Your task to perform on an android device: Is it going to rain tomorrow? Image 0: 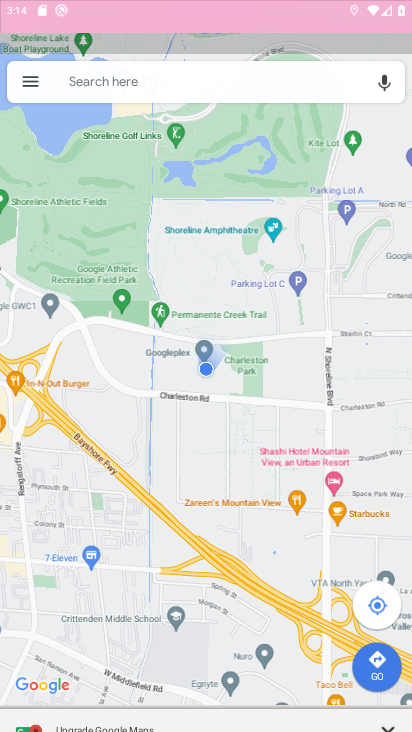
Step 0: drag from (218, 645) to (241, 432)
Your task to perform on an android device: Is it going to rain tomorrow? Image 1: 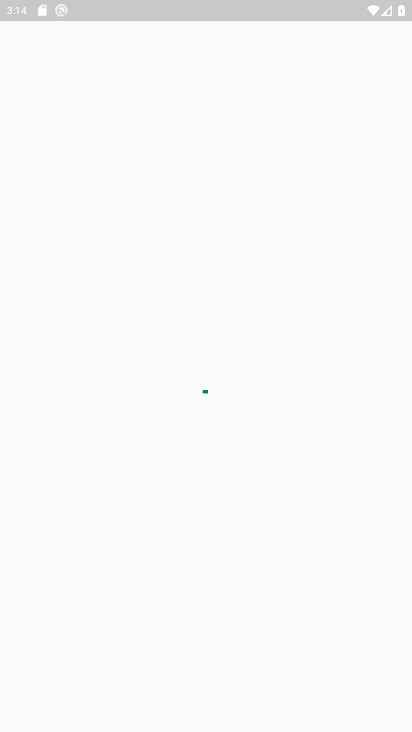
Step 1: press home button
Your task to perform on an android device: Is it going to rain tomorrow? Image 2: 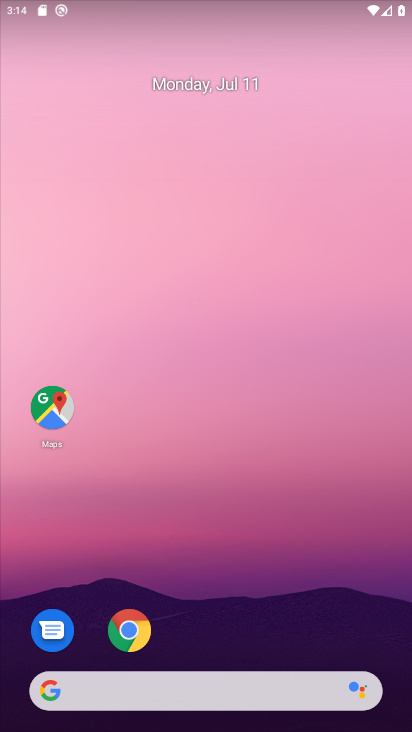
Step 2: drag from (203, 626) to (238, 61)
Your task to perform on an android device: Is it going to rain tomorrow? Image 3: 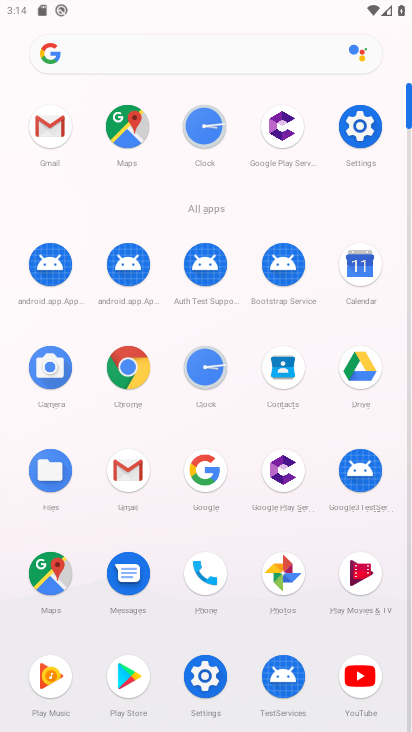
Step 3: click (225, 52)
Your task to perform on an android device: Is it going to rain tomorrow? Image 4: 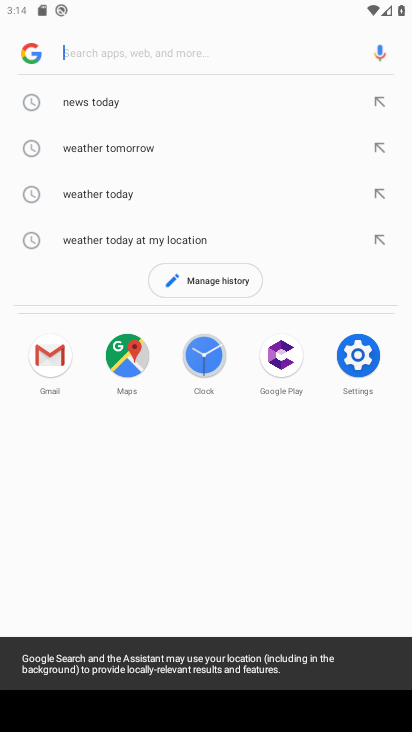
Step 4: click (182, 153)
Your task to perform on an android device: Is it going to rain tomorrow? Image 5: 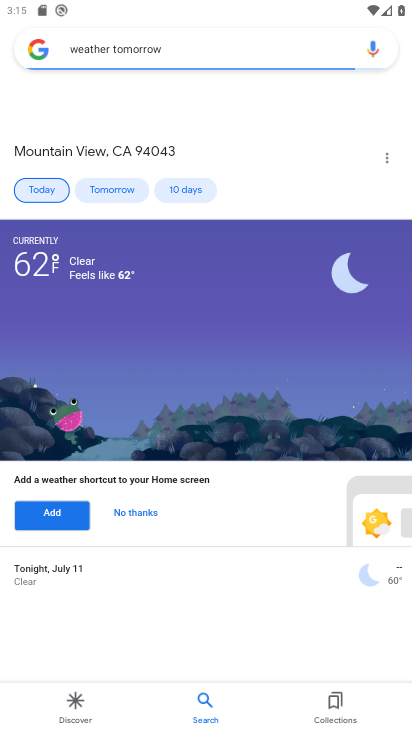
Step 5: task complete